Your task to perform on an android device: Open Android settings Image 0: 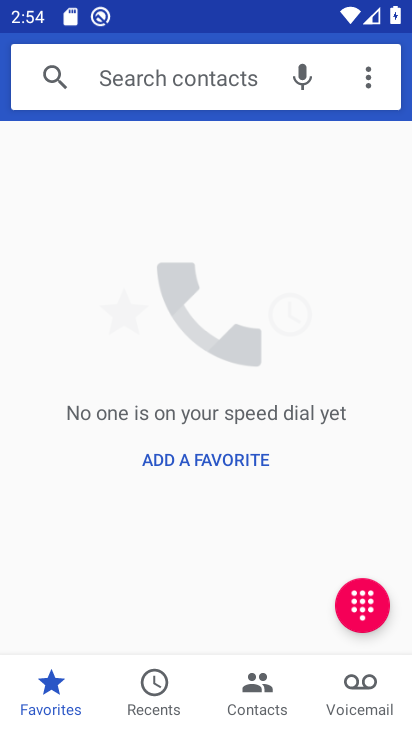
Step 0: press home button
Your task to perform on an android device: Open Android settings Image 1: 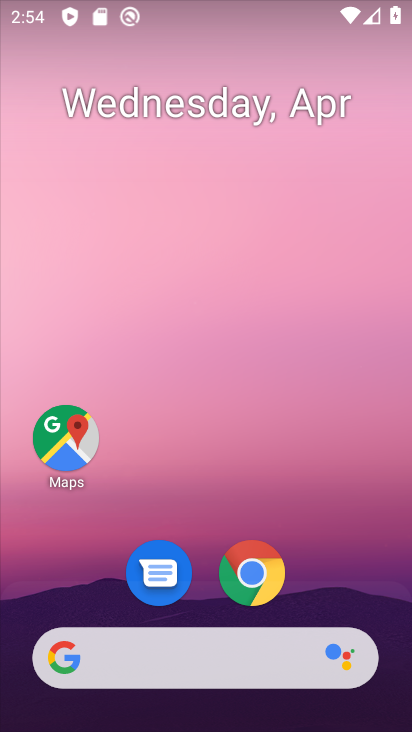
Step 1: drag from (197, 665) to (182, 180)
Your task to perform on an android device: Open Android settings Image 2: 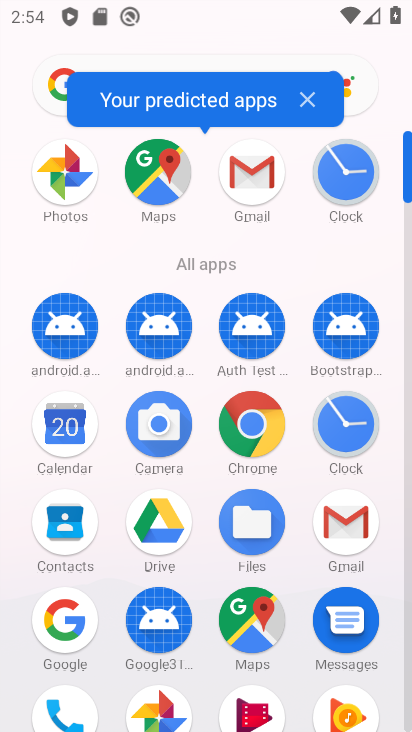
Step 2: drag from (207, 676) to (204, 195)
Your task to perform on an android device: Open Android settings Image 3: 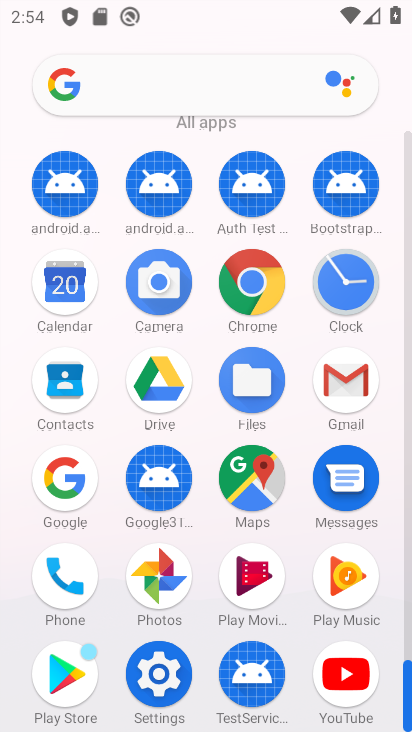
Step 3: click (165, 675)
Your task to perform on an android device: Open Android settings Image 4: 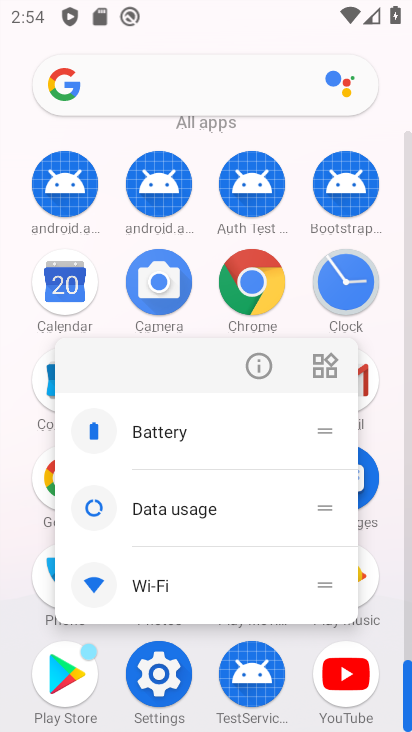
Step 4: click (165, 675)
Your task to perform on an android device: Open Android settings Image 5: 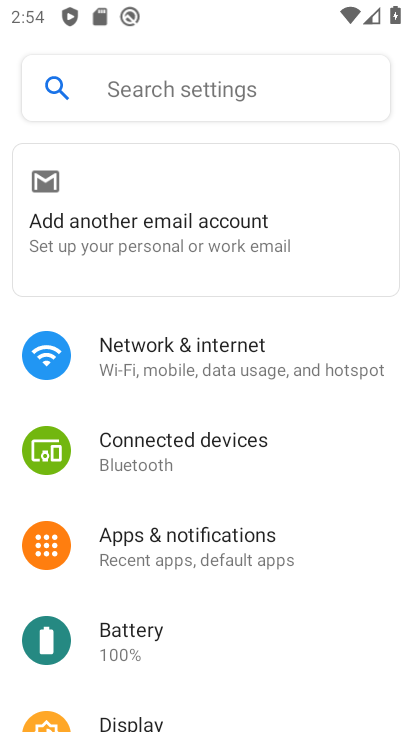
Step 5: drag from (190, 687) to (182, 208)
Your task to perform on an android device: Open Android settings Image 6: 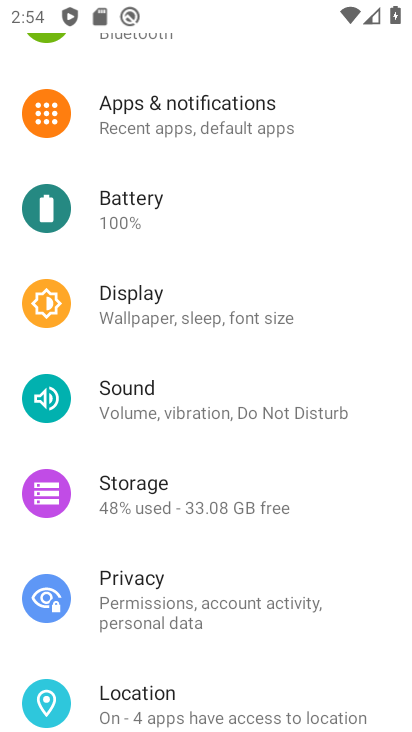
Step 6: drag from (209, 624) to (200, 311)
Your task to perform on an android device: Open Android settings Image 7: 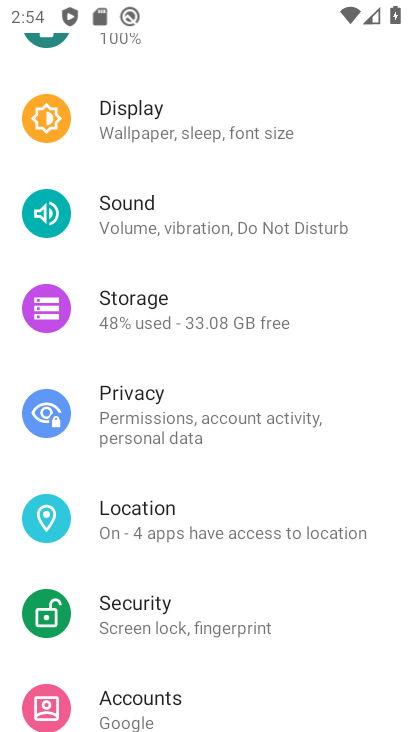
Step 7: drag from (207, 655) to (175, 253)
Your task to perform on an android device: Open Android settings Image 8: 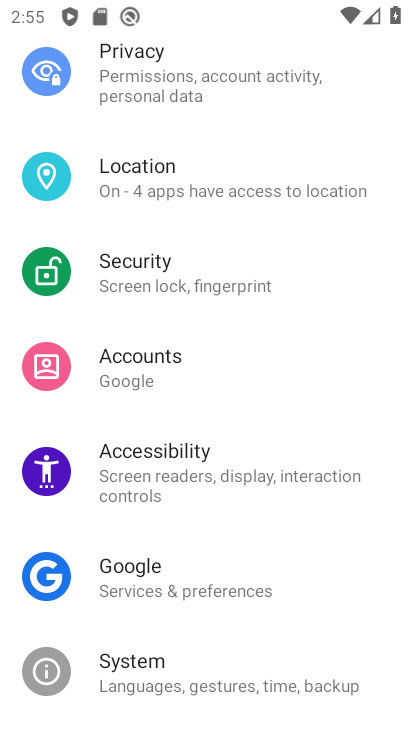
Step 8: drag from (213, 648) to (212, 178)
Your task to perform on an android device: Open Android settings Image 9: 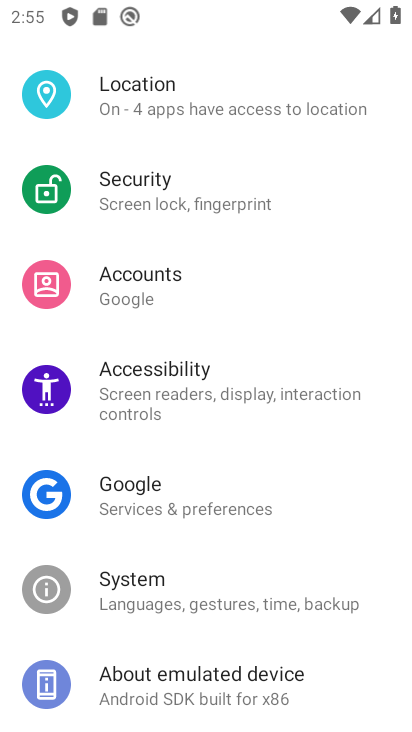
Step 9: click (215, 688)
Your task to perform on an android device: Open Android settings Image 10: 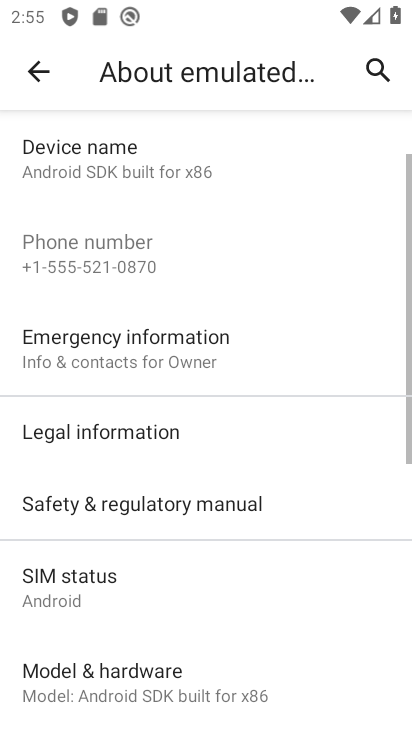
Step 10: drag from (213, 646) to (200, 291)
Your task to perform on an android device: Open Android settings Image 11: 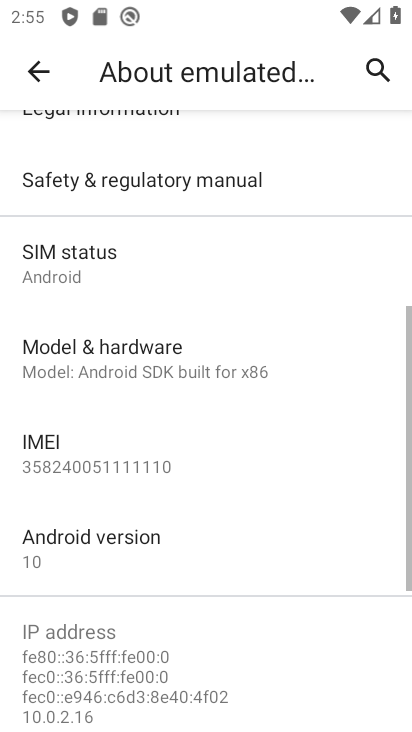
Step 11: click (67, 544)
Your task to perform on an android device: Open Android settings Image 12: 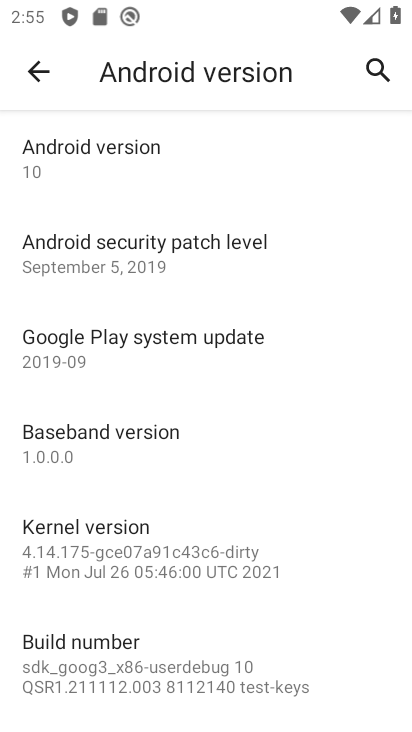
Step 12: task complete